Your task to perform on an android device: install app "Google Photos" Image 0: 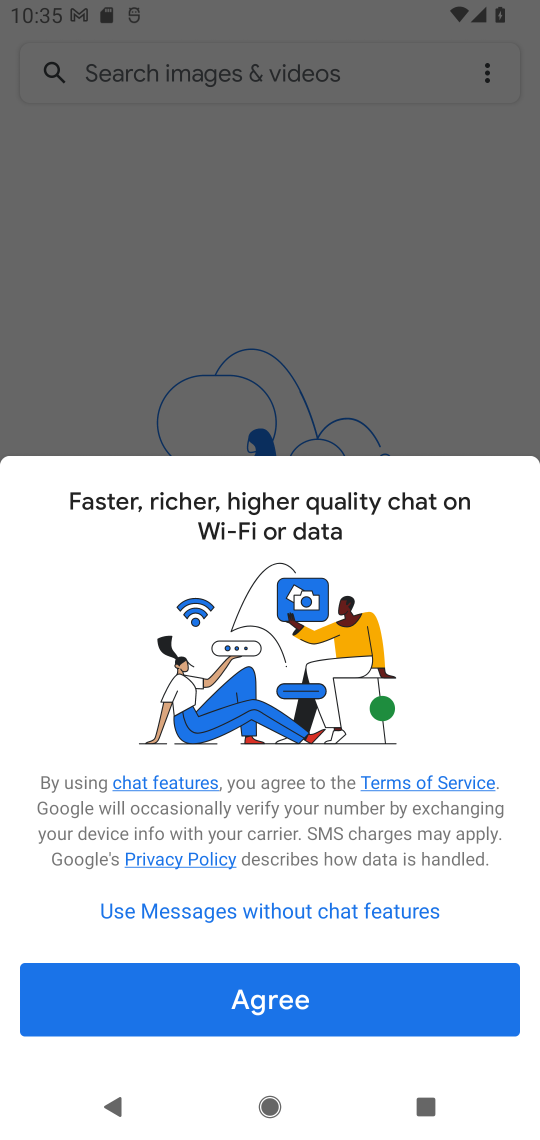
Step 0: press home button
Your task to perform on an android device: install app "Google Photos" Image 1: 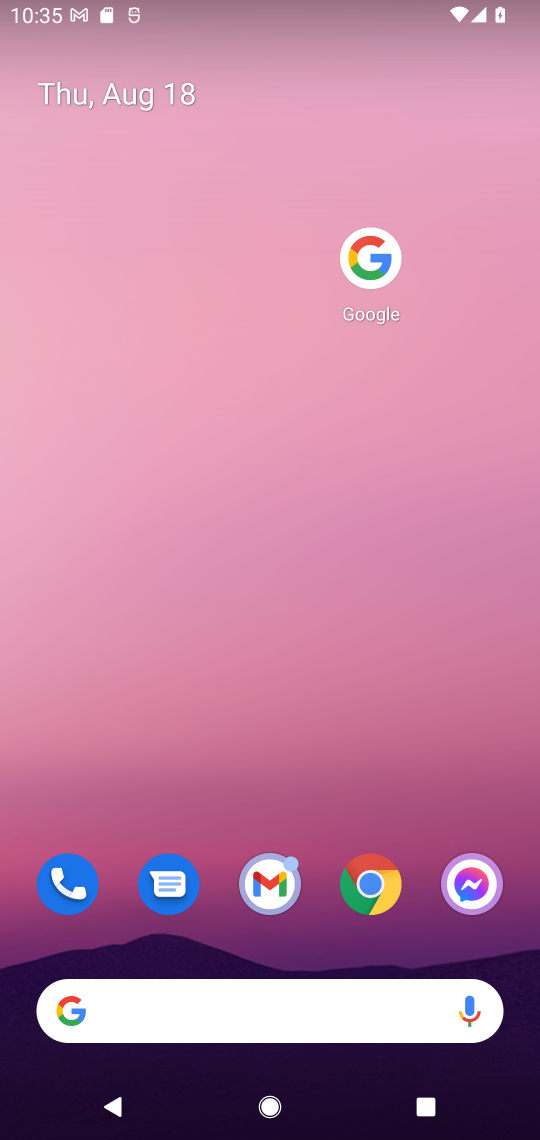
Step 1: click (289, 887)
Your task to perform on an android device: install app "Google Photos" Image 2: 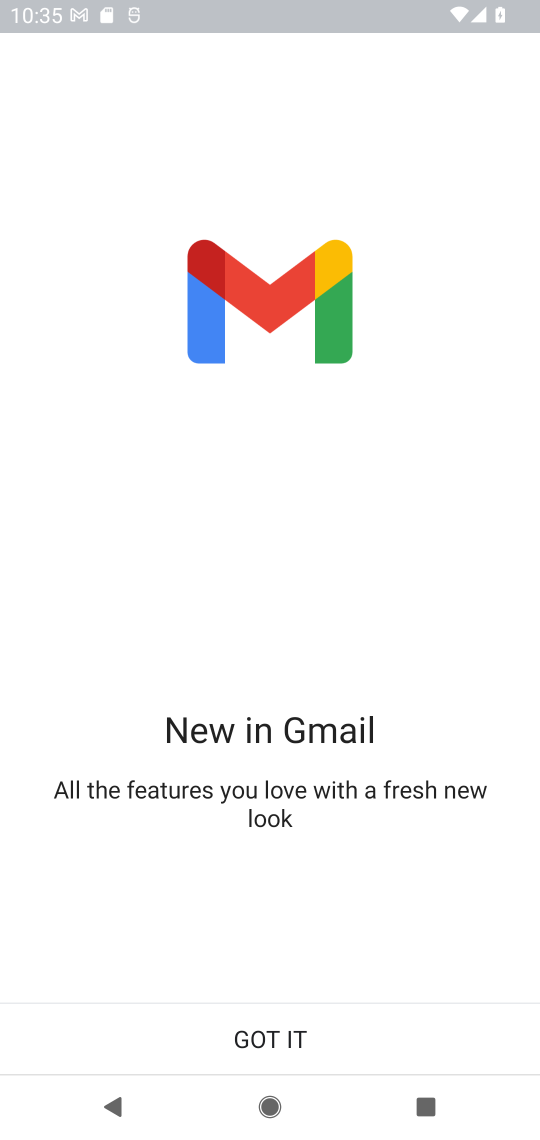
Step 2: click (243, 1045)
Your task to perform on an android device: install app "Google Photos" Image 3: 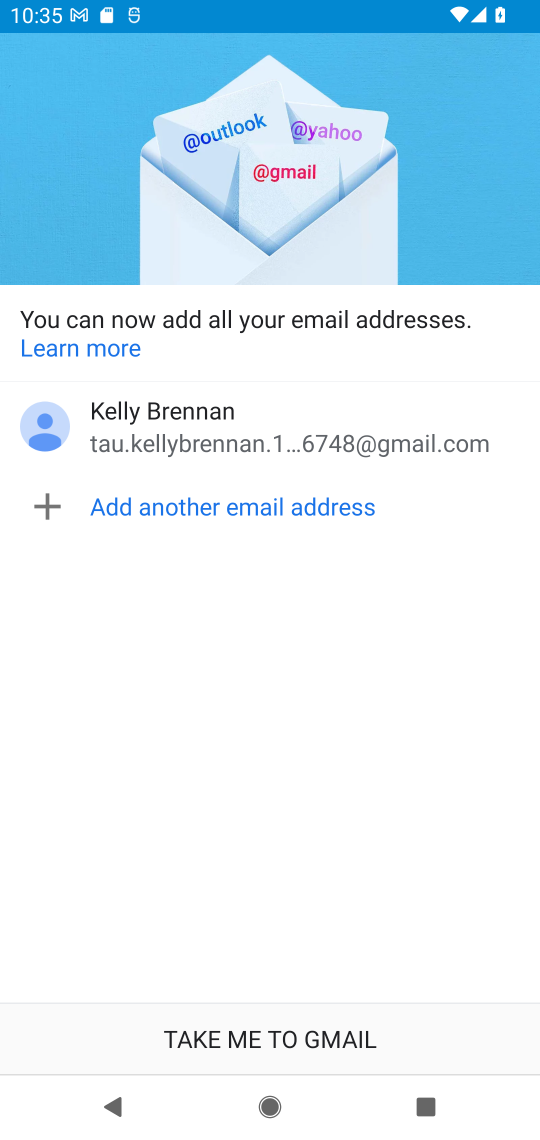
Step 3: click (243, 1045)
Your task to perform on an android device: install app "Google Photos" Image 4: 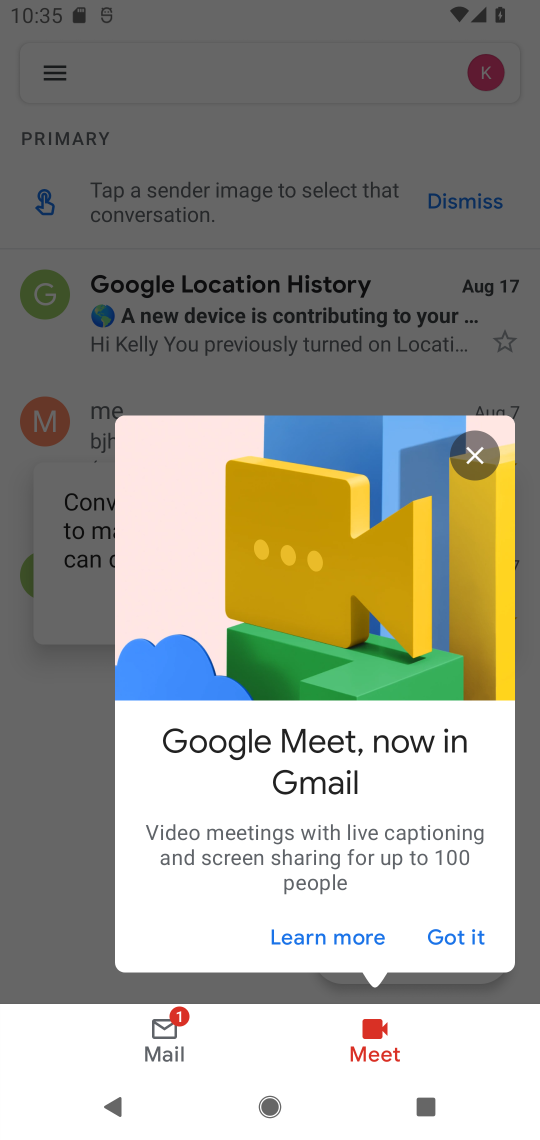
Step 4: click (473, 456)
Your task to perform on an android device: install app "Google Photos" Image 5: 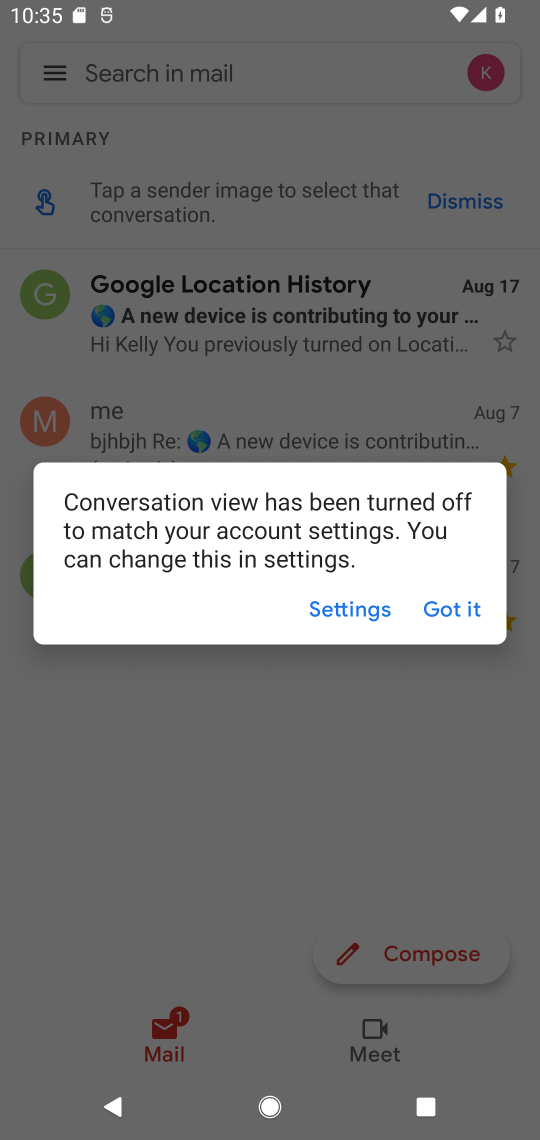
Step 5: click (451, 943)
Your task to perform on an android device: install app "Google Photos" Image 6: 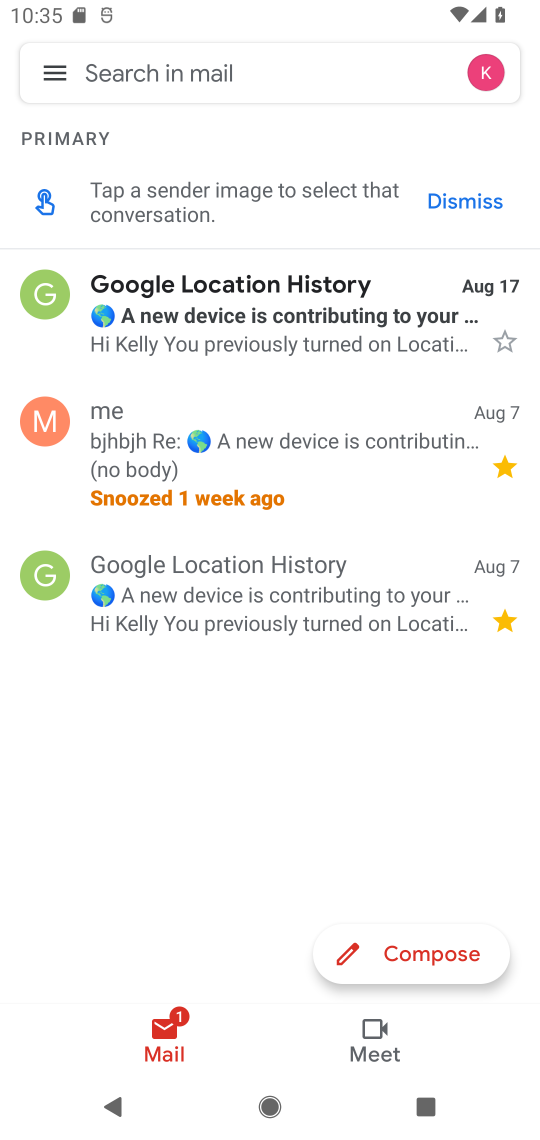
Step 6: click (303, 55)
Your task to perform on an android device: install app "Google Photos" Image 7: 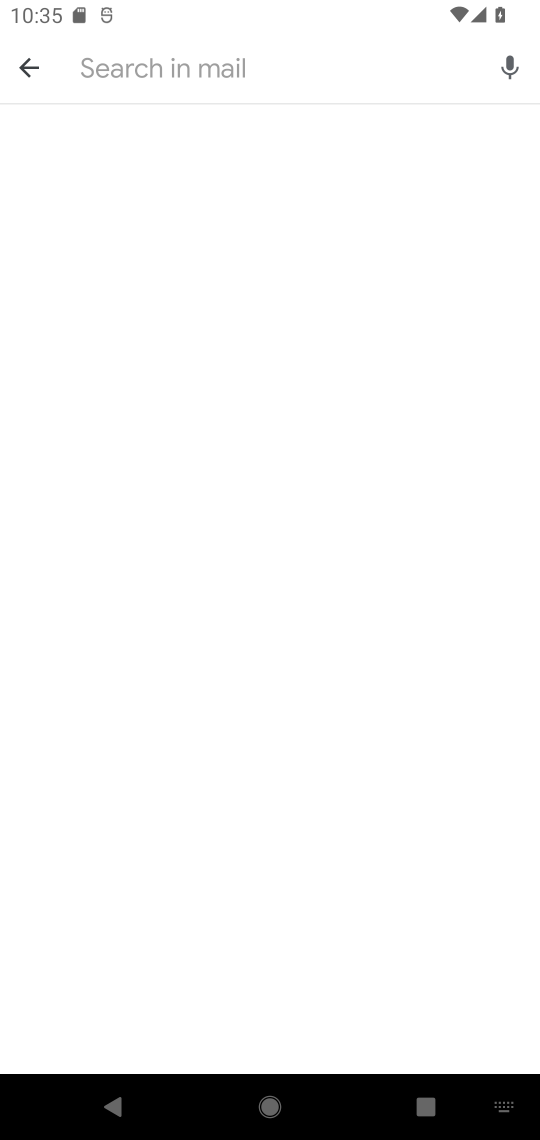
Step 7: type "google photo"
Your task to perform on an android device: install app "Google Photos" Image 8: 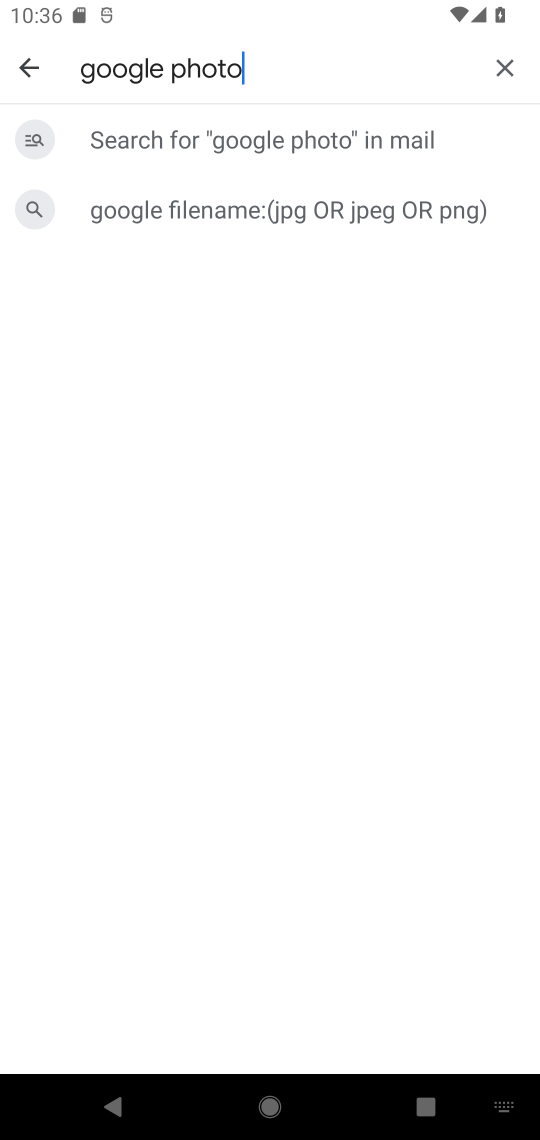
Step 8: click (291, 139)
Your task to perform on an android device: install app "Google Photos" Image 9: 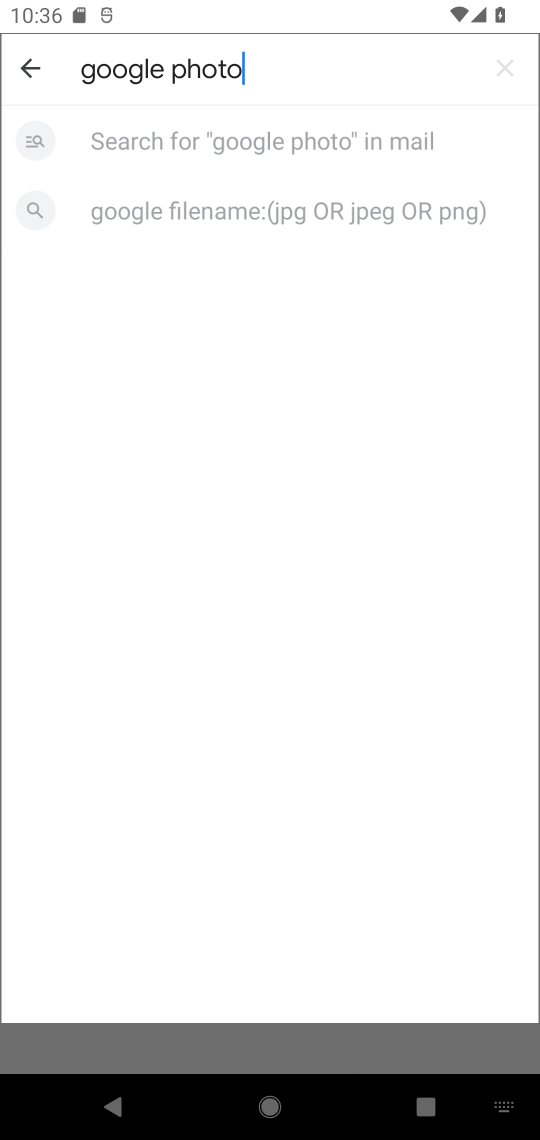
Step 9: task complete